Your task to perform on an android device: toggle improve location accuracy Image 0: 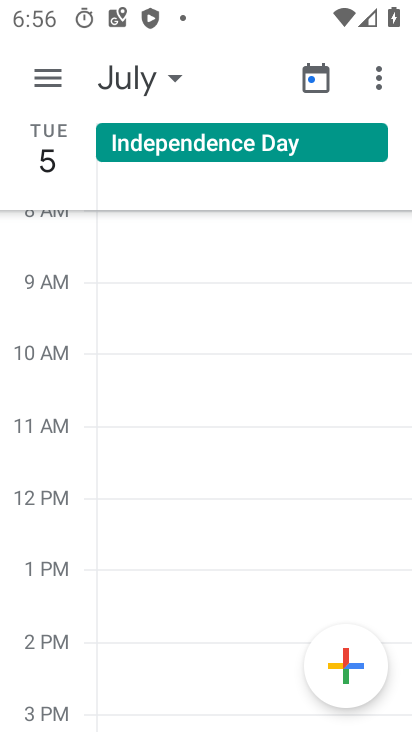
Step 0: press home button
Your task to perform on an android device: toggle improve location accuracy Image 1: 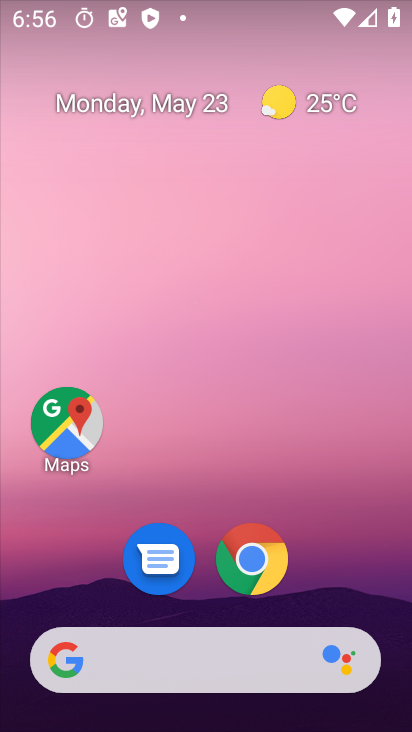
Step 1: drag from (394, 632) to (321, 50)
Your task to perform on an android device: toggle improve location accuracy Image 2: 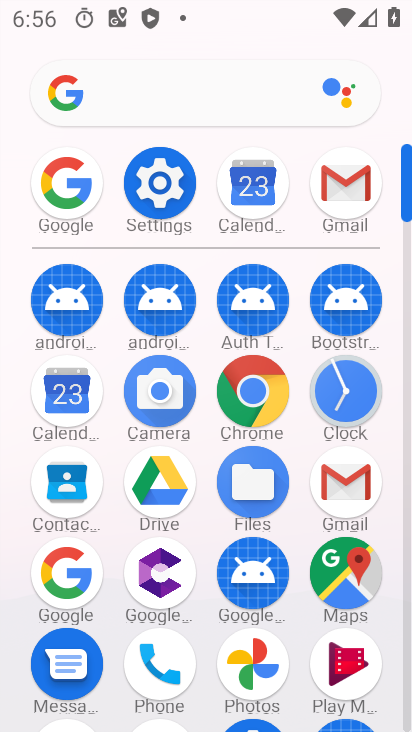
Step 2: click (150, 201)
Your task to perform on an android device: toggle improve location accuracy Image 3: 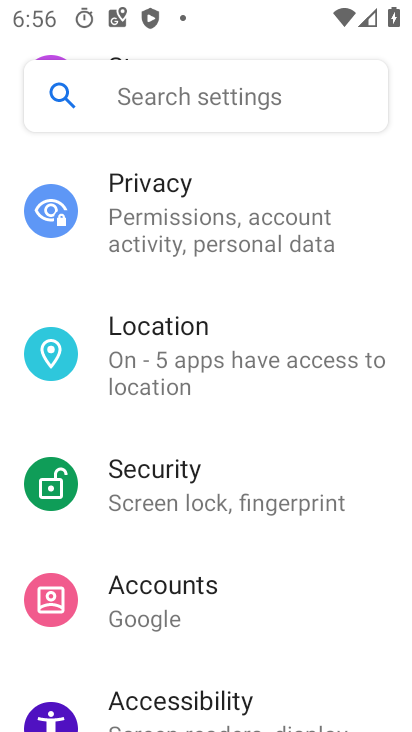
Step 3: click (258, 375)
Your task to perform on an android device: toggle improve location accuracy Image 4: 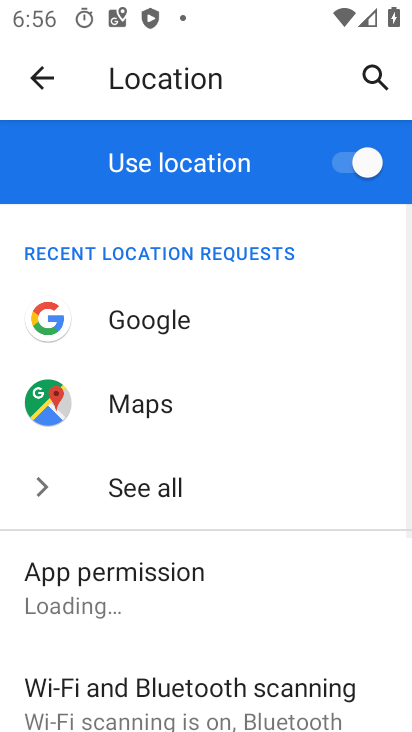
Step 4: drag from (101, 685) to (128, 197)
Your task to perform on an android device: toggle improve location accuracy Image 5: 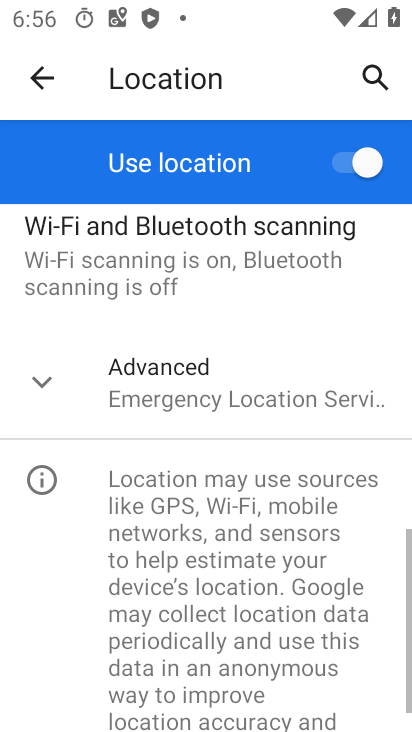
Step 5: click (53, 386)
Your task to perform on an android device: toggle improve location accuracy Image 6: 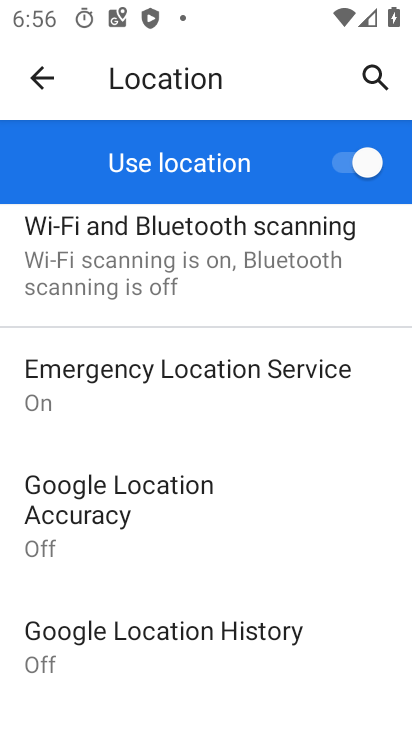
Step 6: click (138, 487)
Your task to perform on an android device: toggle improve location accuracy Image 7: 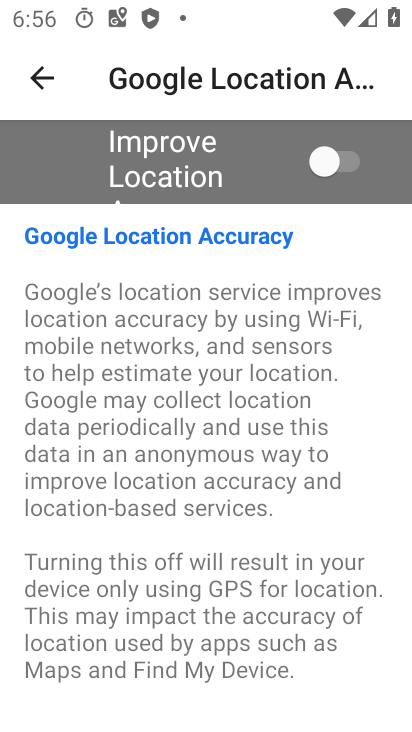
Step 7: click (298, 159)
Your task to perform on an android device: toggle improve location accuracy Image 8: 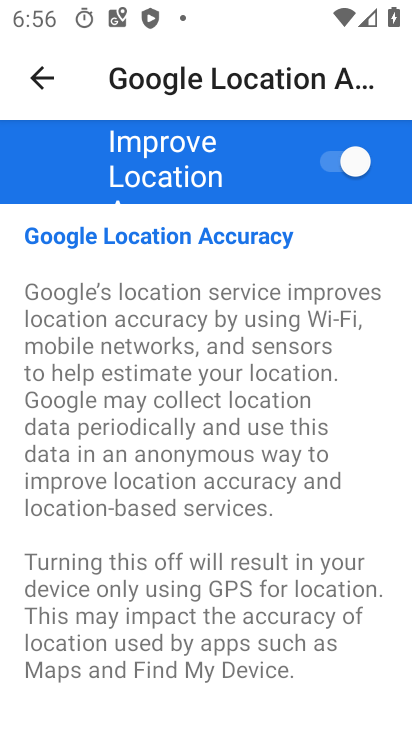
Step 8: task complete